Your task to perform on an android device: add a contact Image 0: 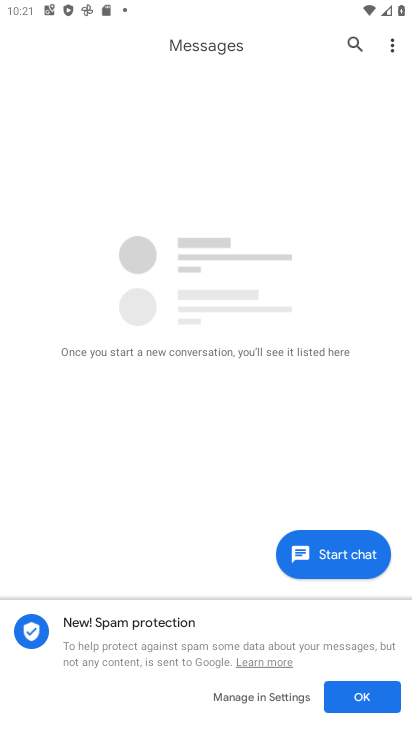
Step 0: press home button
Your task to perform on an android device: add a contact Image 1: 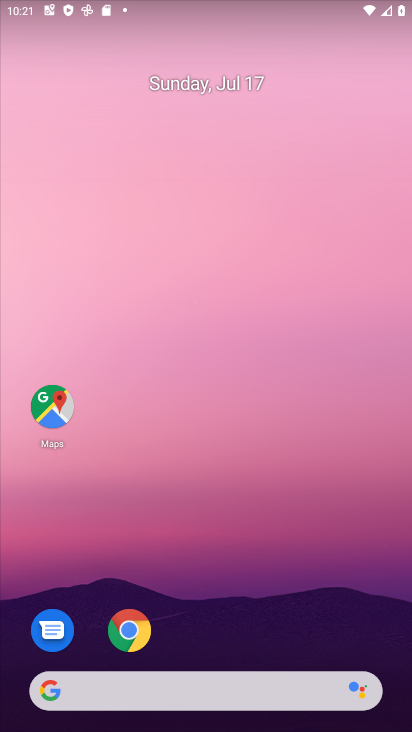
Step 1: drag from (274, 632) to (236, 4)
Your task to perform on an android device: add a contact Image 2: 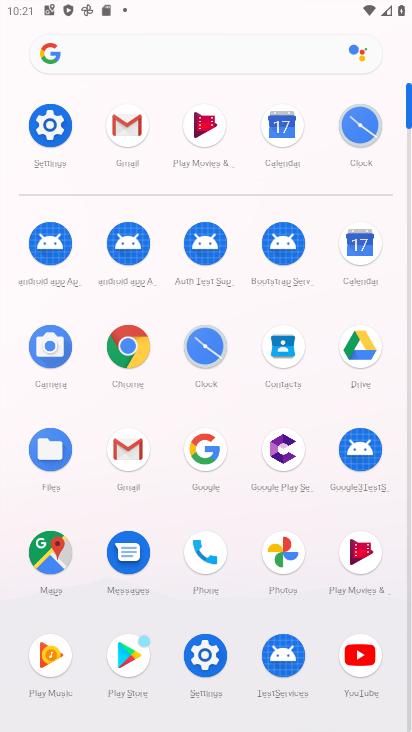
Step 2: click (285, 343)
Your task to perform on an android device: add a contact Image 3: 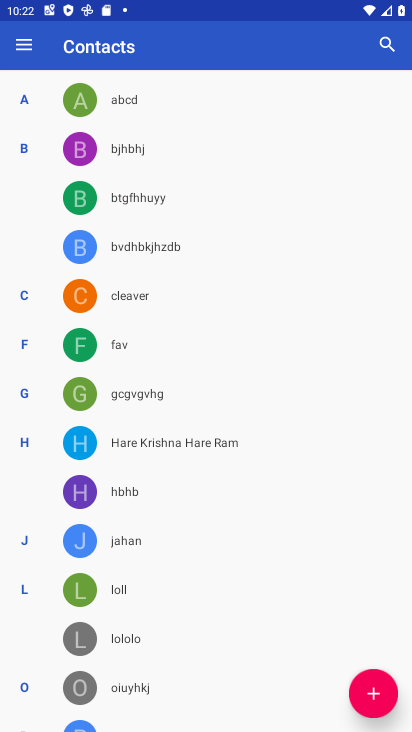
Step 3: click (379, 694)
Your task to perform on an android device: add a contact Image 4: 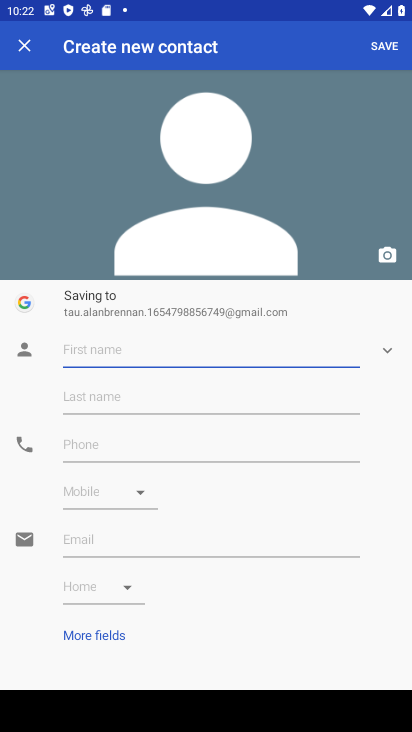
Step 4: type "fsfs"
Your task to perform on an android device: add a contact Image 5: 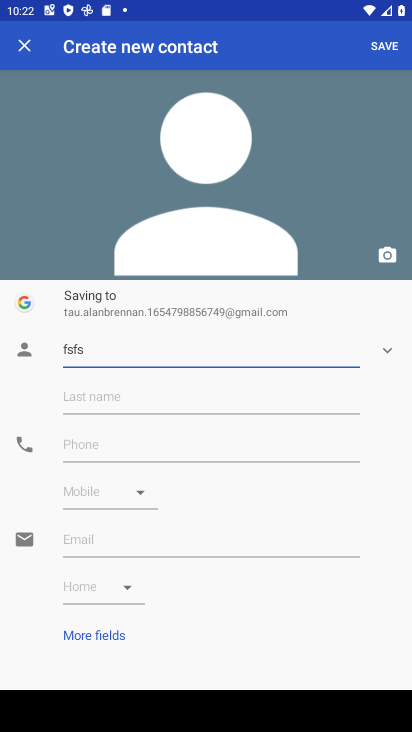
Step 5: click (260, 384)
Your task to perform on an android device: add a contact Image 6: 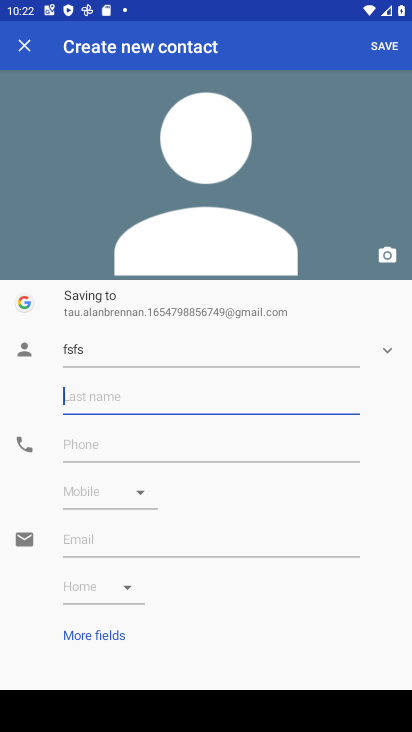
Step 6: type "adfs"
Your task to perform on an android device: add a contact Image 7: 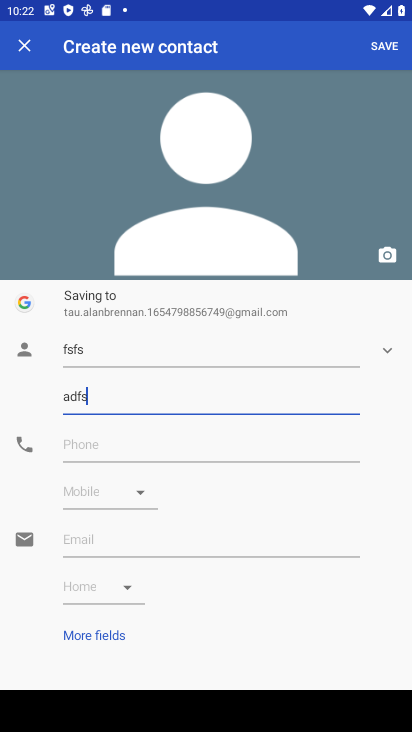
Step 7: click (88, 442)
Your task to perform on an android device: add a contact Image 8: 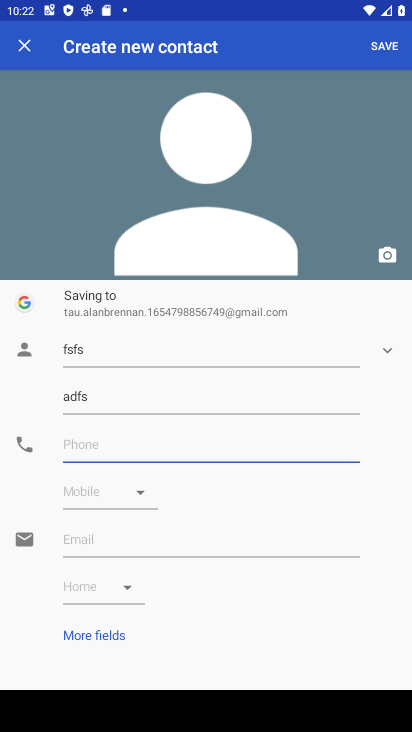
Step 8: type "525525"
Your task to perform on an android device: add a contact Image 9: 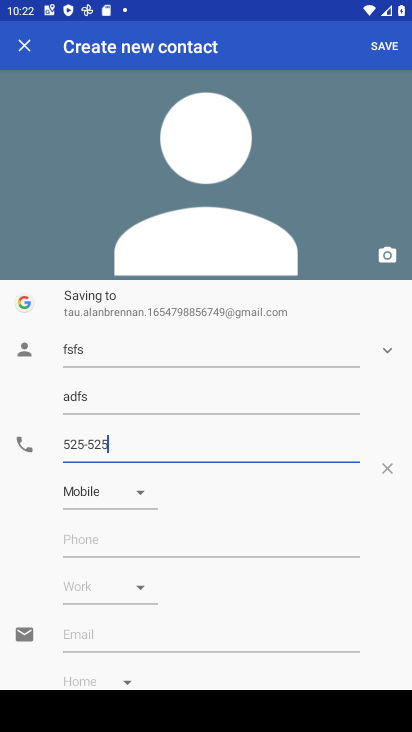
Step 9: click (371, 42)
Your task to perform on an android device: add a contact Image 10: 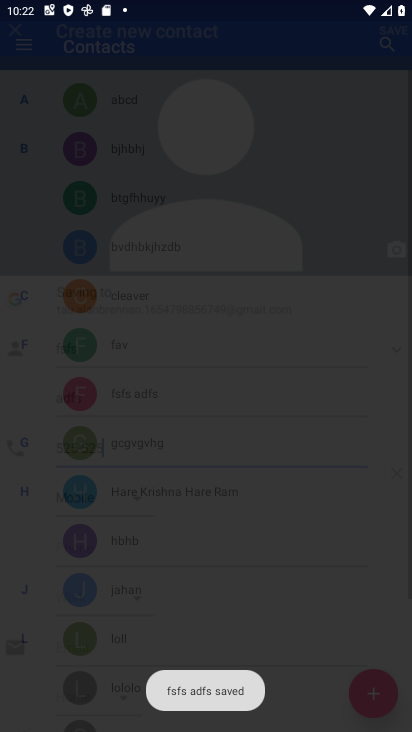
Step 10: task complete